Your task to perform on an android device: find which apps use the phone's location Image 0: 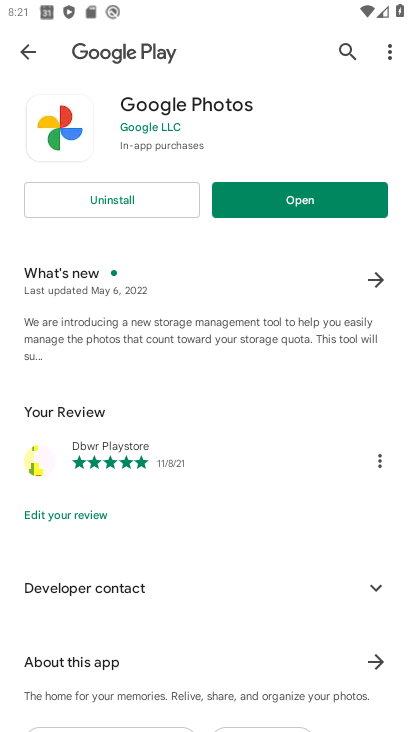
Step 0: drag from (223, 616) to (223, 251)
Your task to perform on an android device: find which apps use the phone's location Image 1: 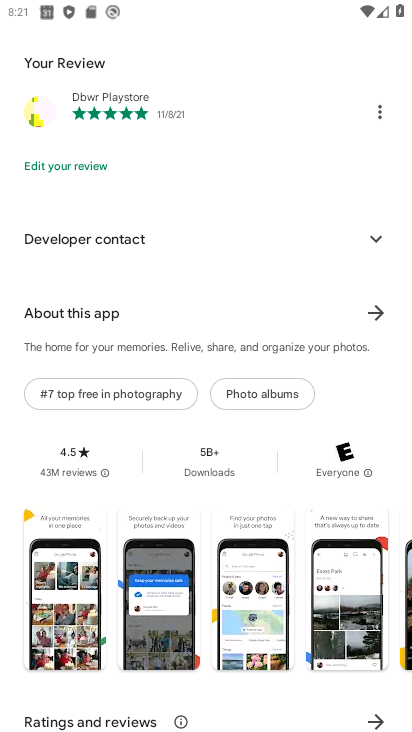
Step 1: press home button
Your task to perform on an android device: find which apps use the phone's location Image 2: 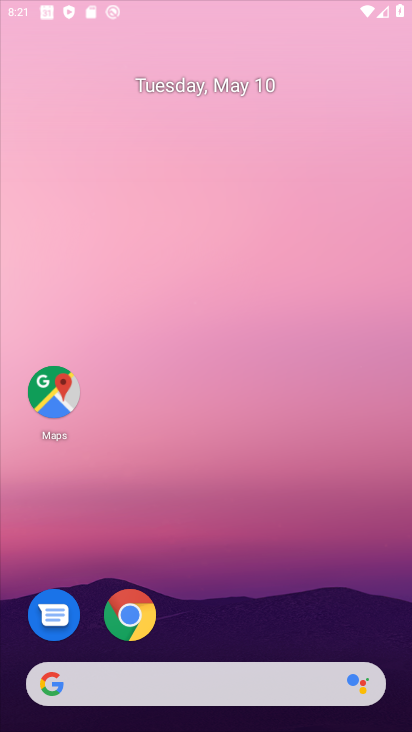
Step 2: drag from (243, 643) to (258, 301)
Your task to perform on an android device: find which apps use the phone's location Image 3: 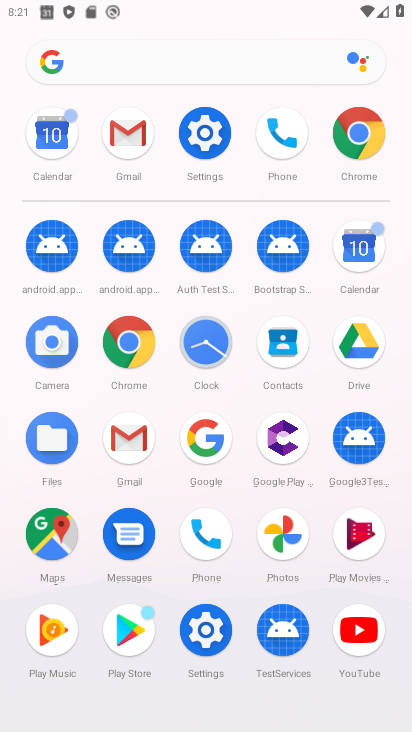
Step 3: click (212, 140)
Your task to perform on an android device: find which apps use the phone's location Image 4: 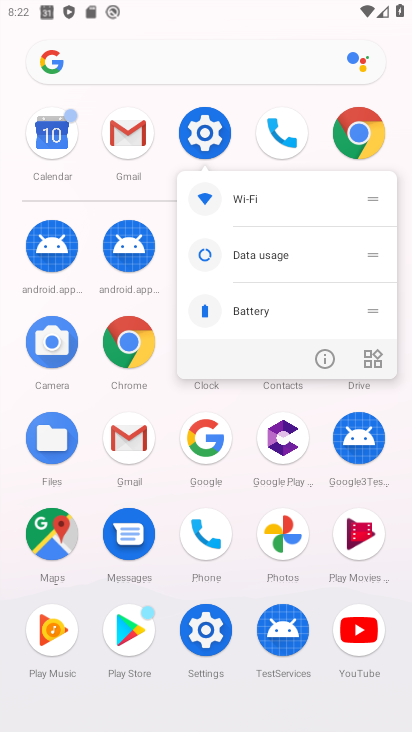
Step 4: click (317, 364)
Your task to perform on an android device: find which apps use the phone's location Image 5: 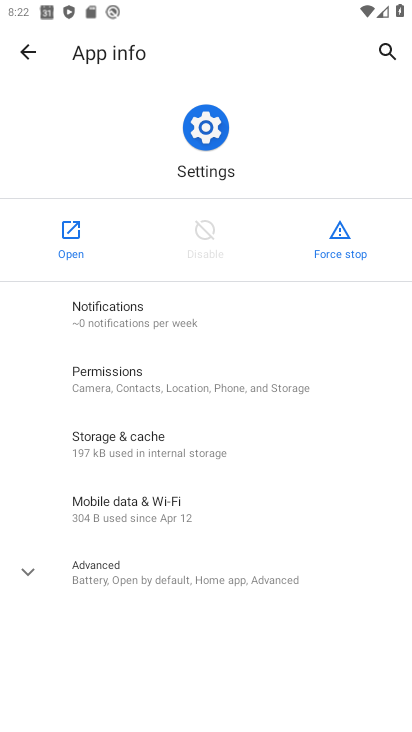
Step 5: click (75, 244)
Your task to perform on an android device: find which apps use the phone's location Image 6: 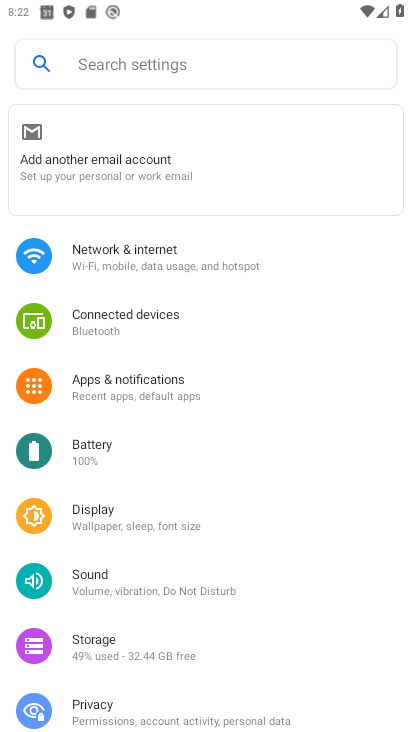
Step 6: drag from (180, 646) to (282, 65)
Your task to perform on an android device: find which apps use the phone's location Image 7: 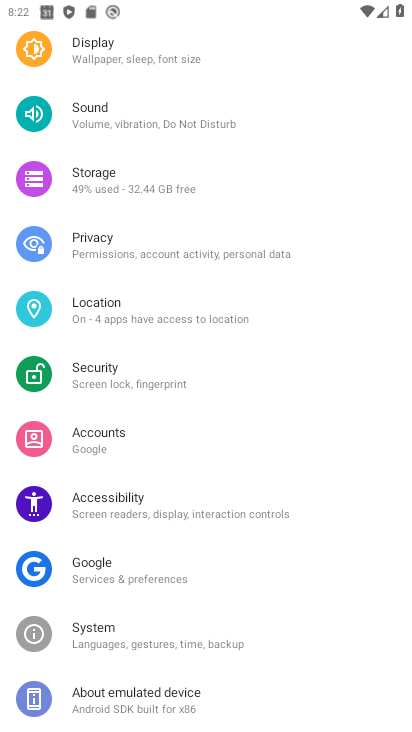
Step 7: click (115, 303)
Your task to perform on an android device: find which apps use the phone's location Image 8: 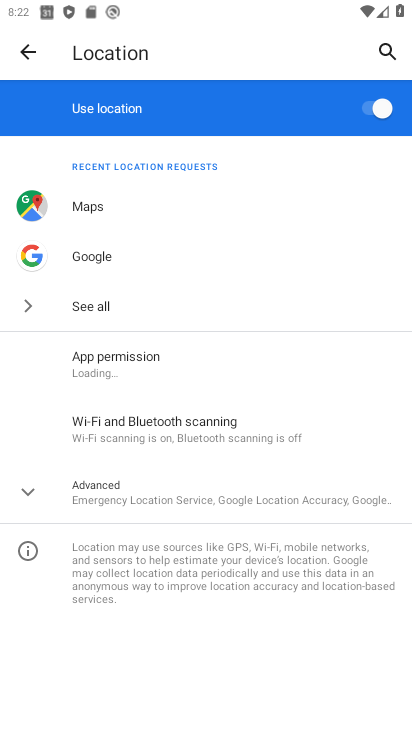
Step 8: click (134, 357)
Your task to perform on an android device: find which apps use the phone's location Image 9: 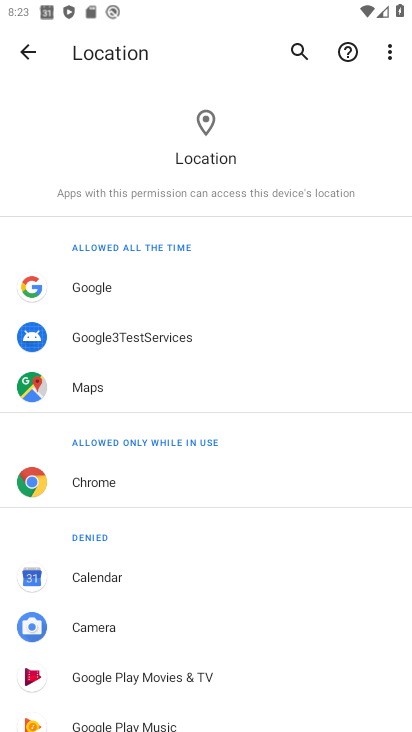
Step 9: task complete